Your task to perform on an android device: Go to internet settings Image 0: 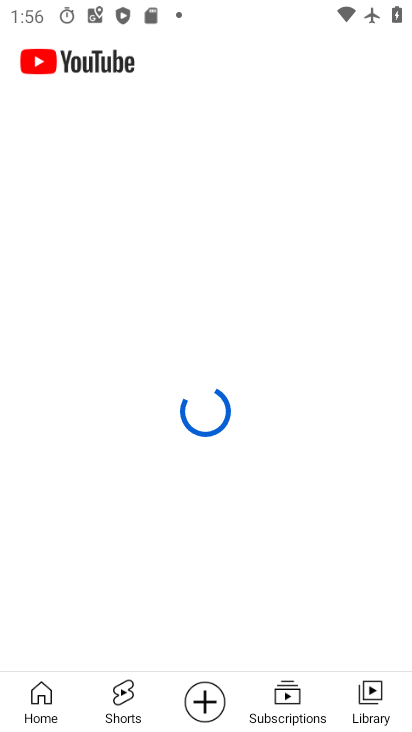
Step 0: press home button
Your task to perform on an android device: Go to internet settings Image 1: 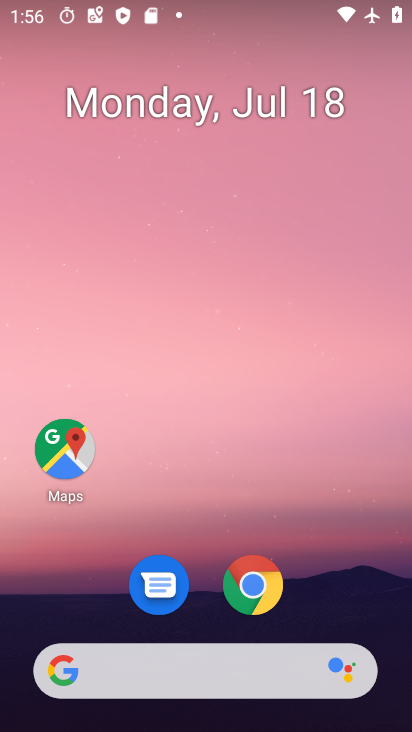
Step 1: drag from (225, 497) to (300, 169)
Your task to perform on an android device: Go to internet settings Image 2: 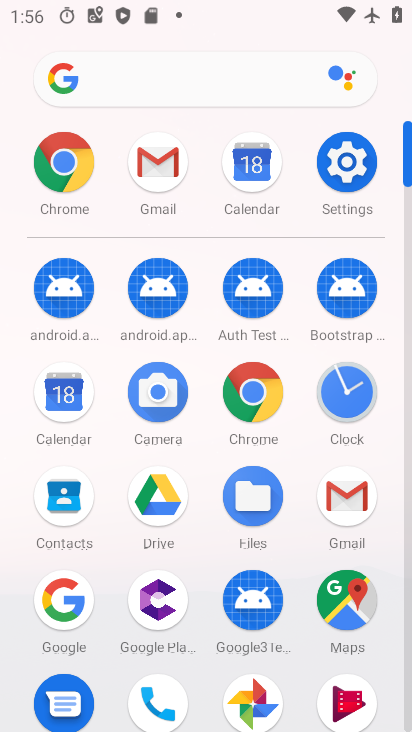
Step 2: click (338, 171)
Your task to perform on an android device: Go to internet settings Image 3: 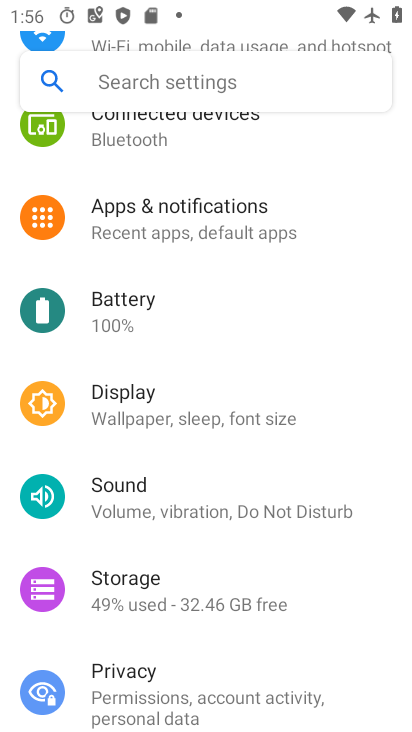
Step 3: drag from (313, 173) to (231, 557)
Your task to perform on an android device: Go to internet settings Image 4: 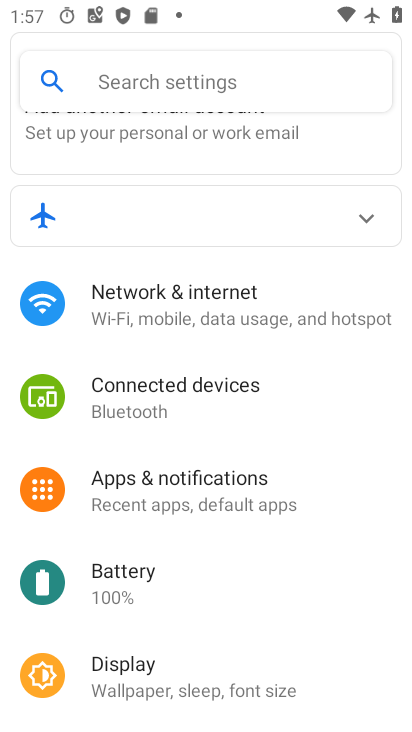
Step 4: click (193, 307)
Your task to perform on an android device: Go to internet settings Image 5: 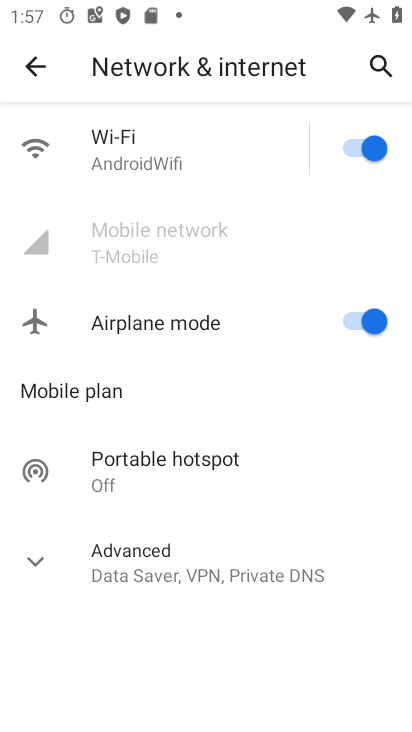
Step 5: task complete